Your task to perform on an android device: What's on my calendar tomorrow? Image 0: 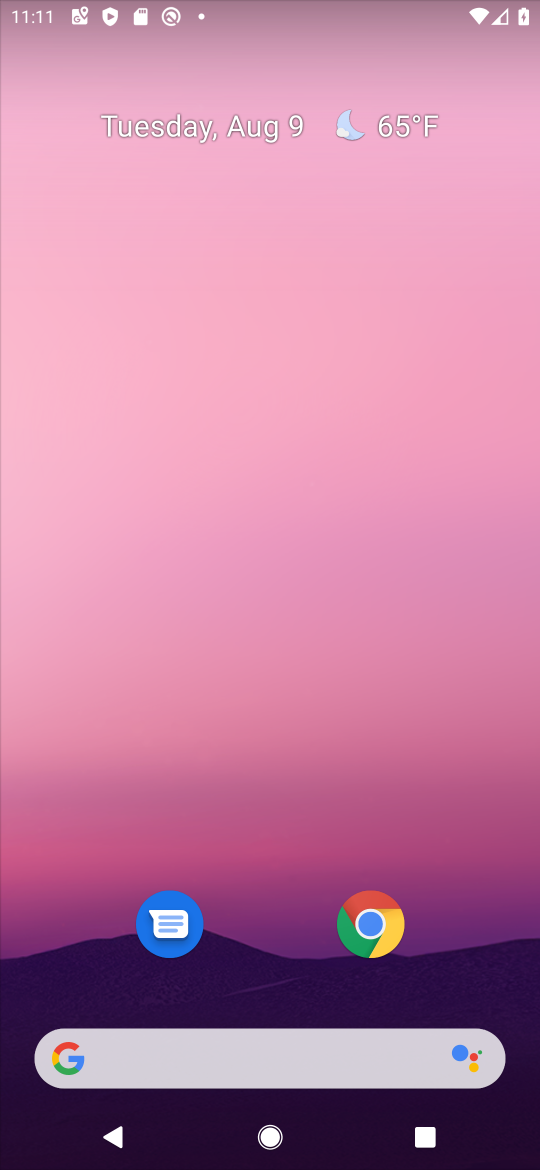
Step 0: drag from (262, 953) to (484, 122)
Your task to perform on an android device: What's on my calendar tomorrow? Image 1: 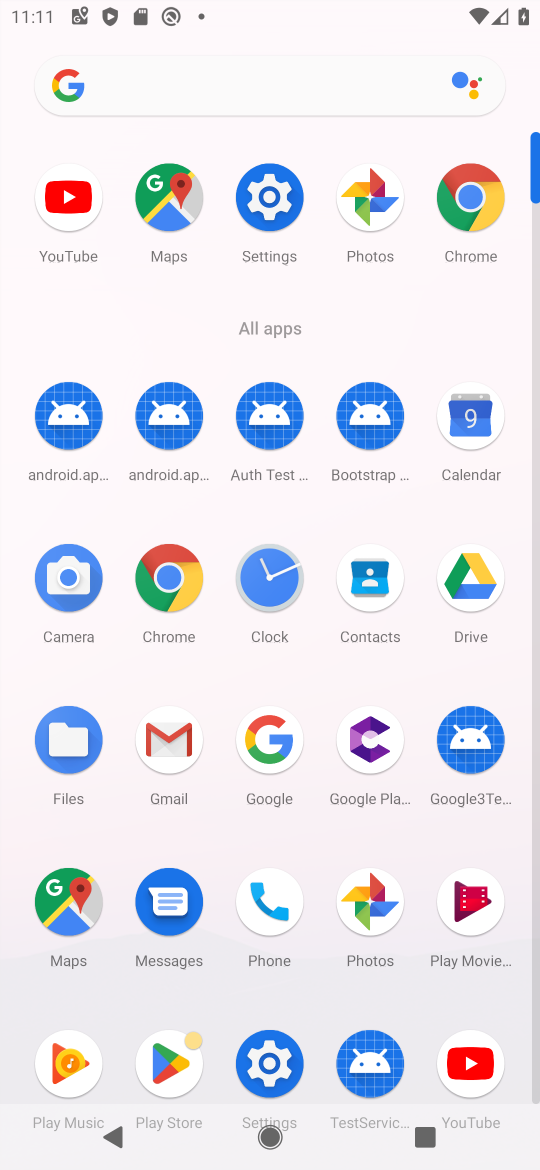
Step 1: click (476, 409)
Your task to perform on an android device: What's on my calendar tomorrow? Image 2: 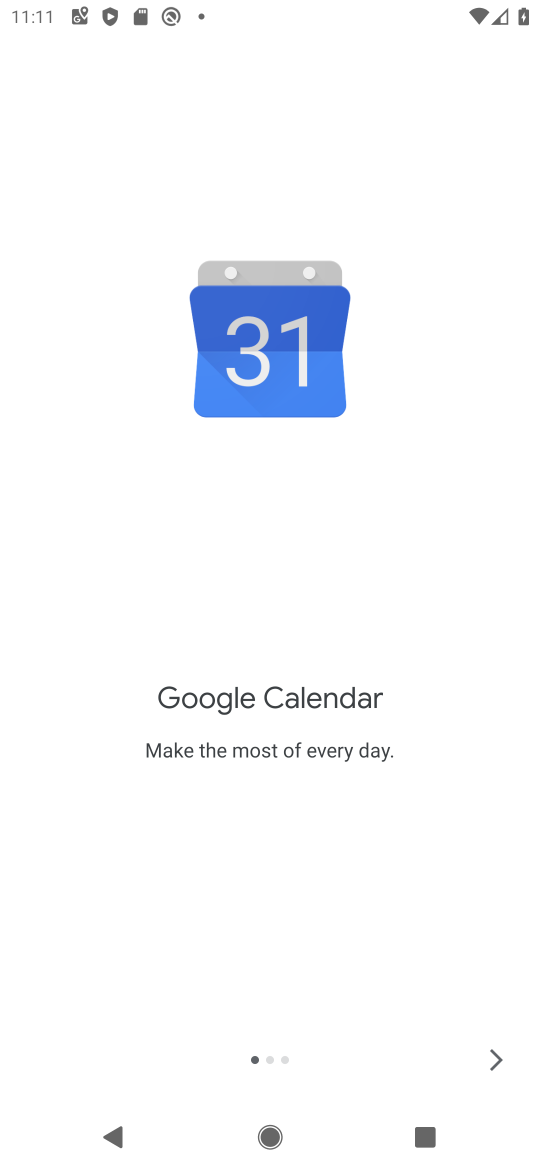
Step 2: click (493, 1057)
Your task to perform on an android device: What's on my calendar tomorrow? Image 3: 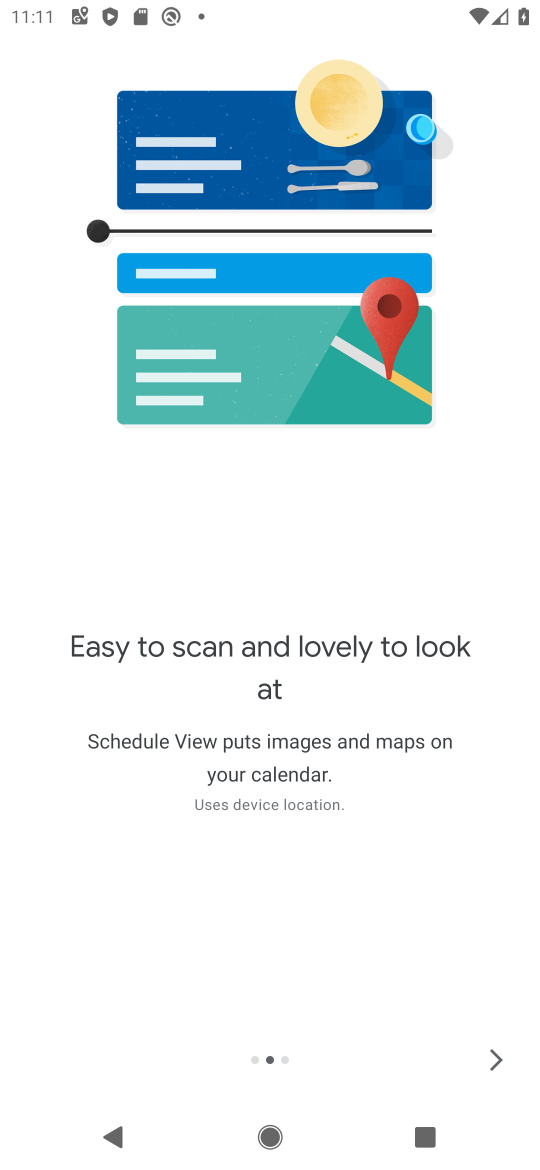
Step 3: click (493, 1057)
Your task to perform on an android device: What's on my calendar tomorrow? Image 4: 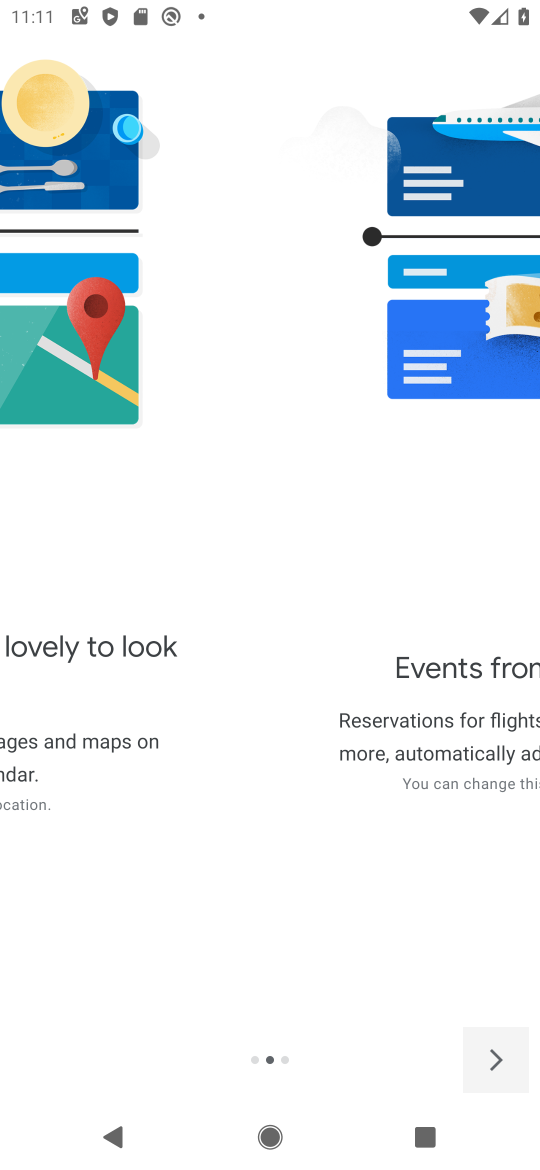
Step 4: click (493, 1057)
Your task to perform on an android device: What's on my calendar tomorrow? Image 5: 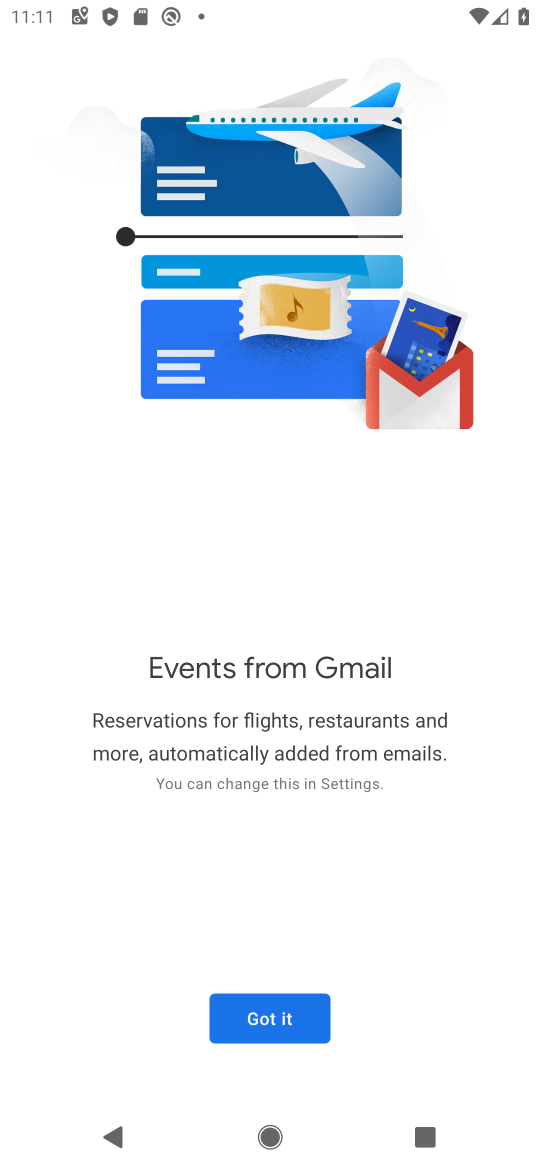
Step 5: click (266, 1022)
Your task to perform on an android device: What's on my calendar tomorrow? Image 6: 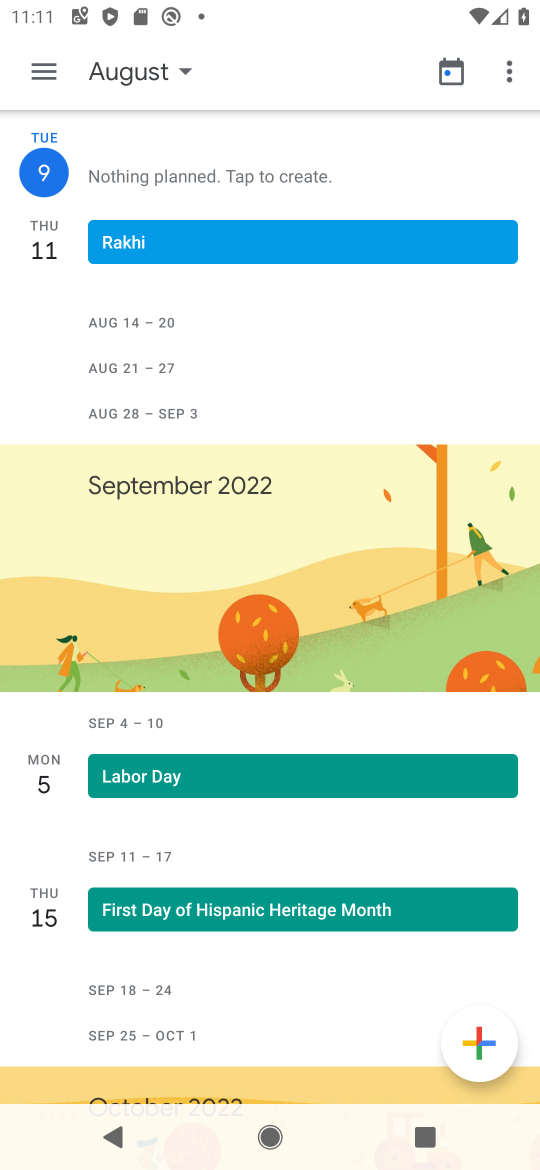
Step 6: task complete